Your task to perform on an android device: Go to eBay Image 0: 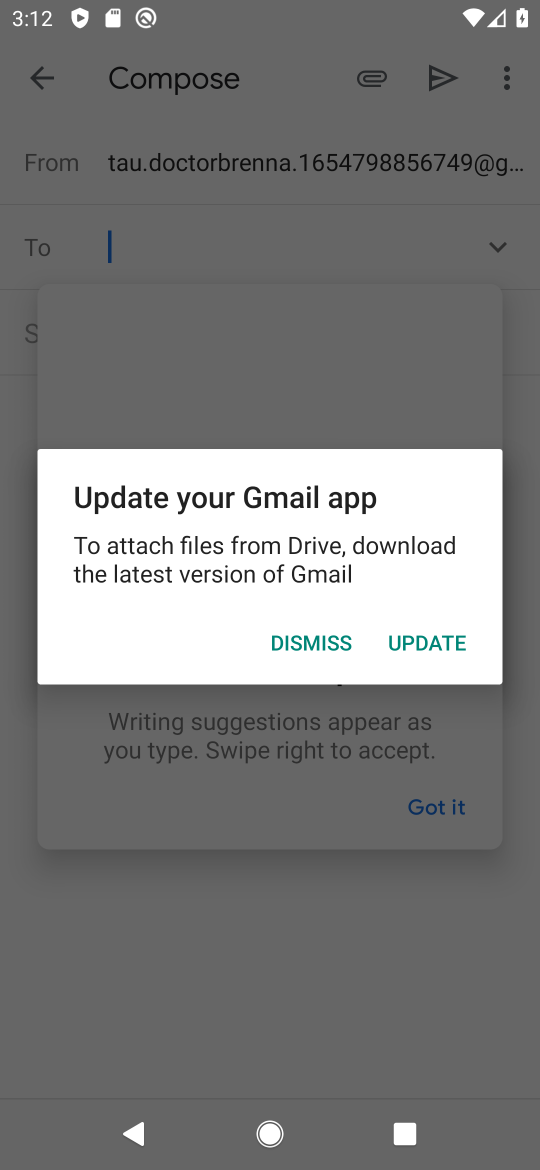
Step 0: press home button
Your task to perform on an android device: Go to eBay Image 1: 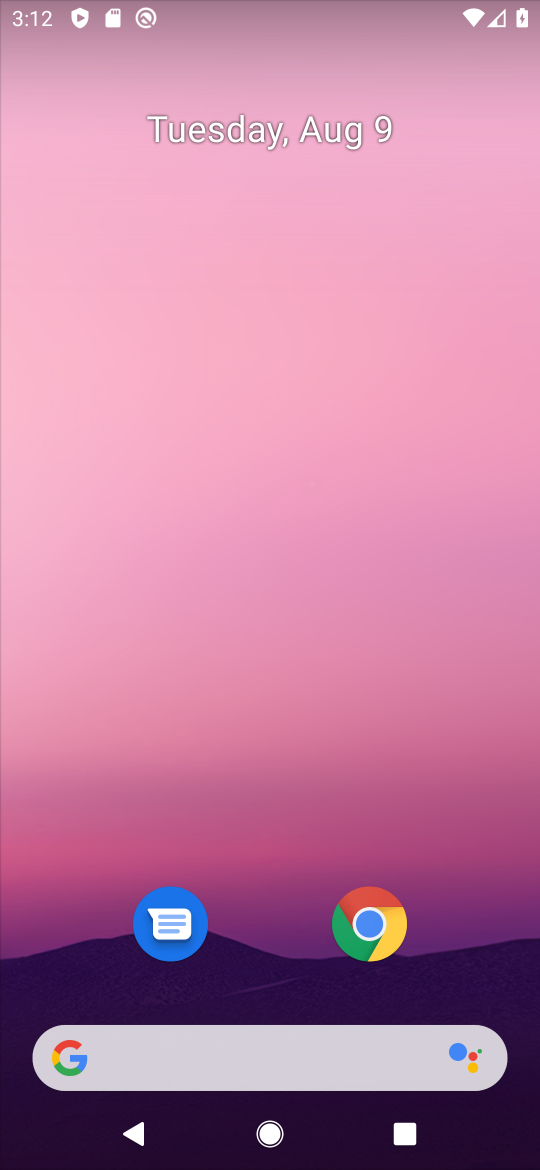
Step 1: click (375, 925)
Your task to perform on an android device: Go to eBay Image 2: 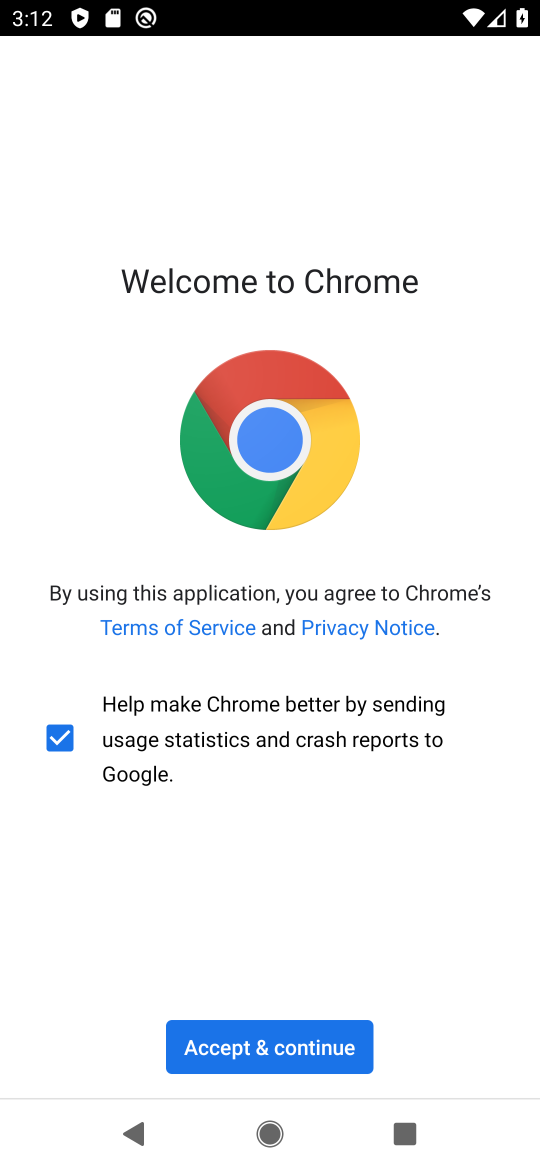
Step 2: click (289, 1043)
Your task to perform on an android device: Go to eBay Image 3: 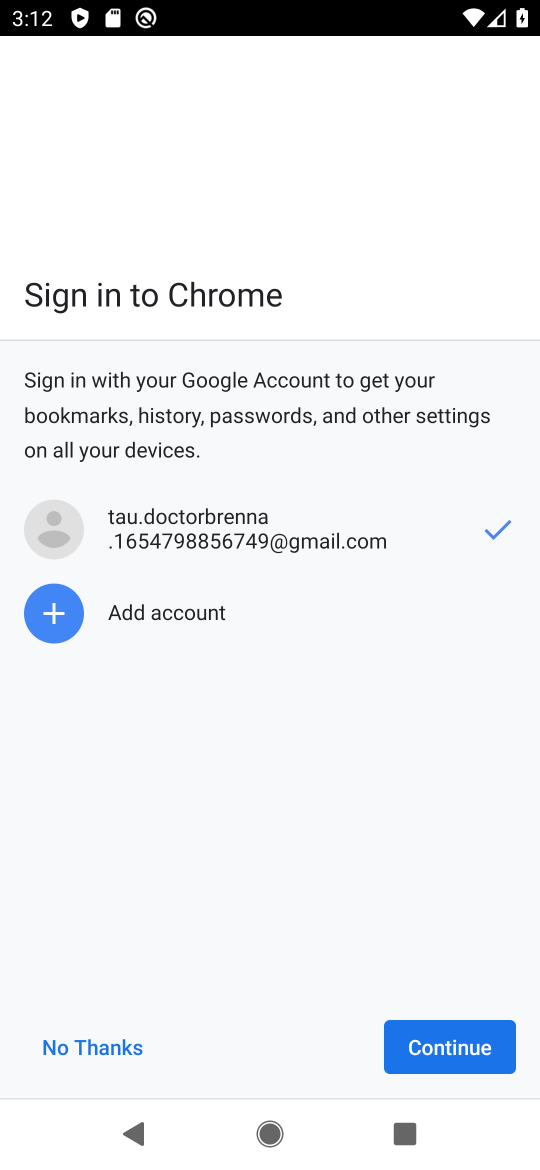
Step 3: click (444, 1047)
Your task to perform on an android device: Go to eBay Image 4: 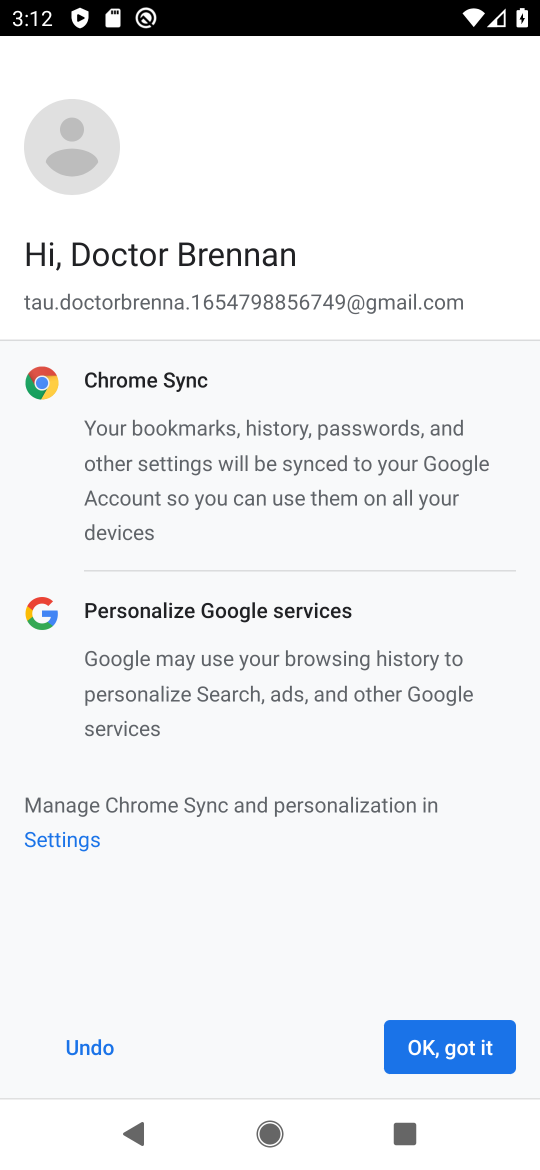
Step 4: click (444, 1047)
Your task to perform on an android device: Go to eBay Image 5: 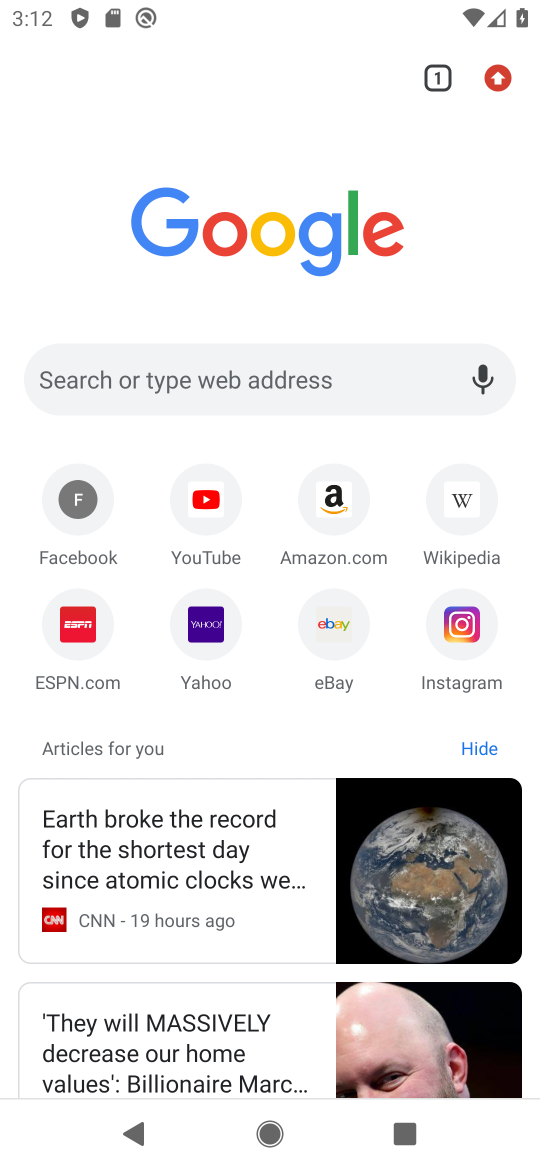
Step 5: click (331, 635)
Your task to perform on an android device: Go to eBay Image 6: 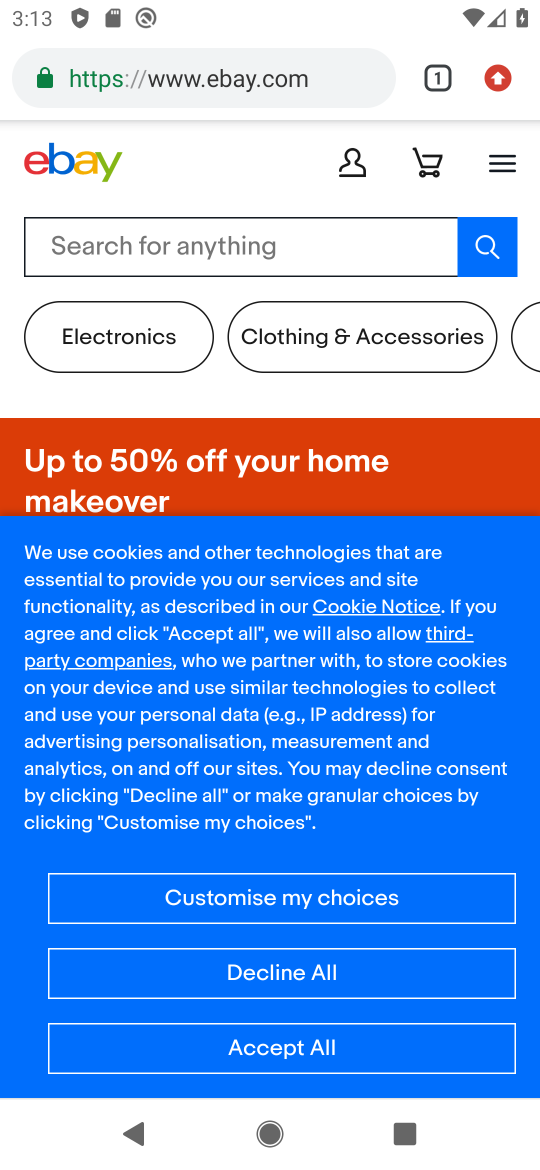
Step 6: click (311, 1048)
Your task to perform on an android device: Go to eBay Image 7: 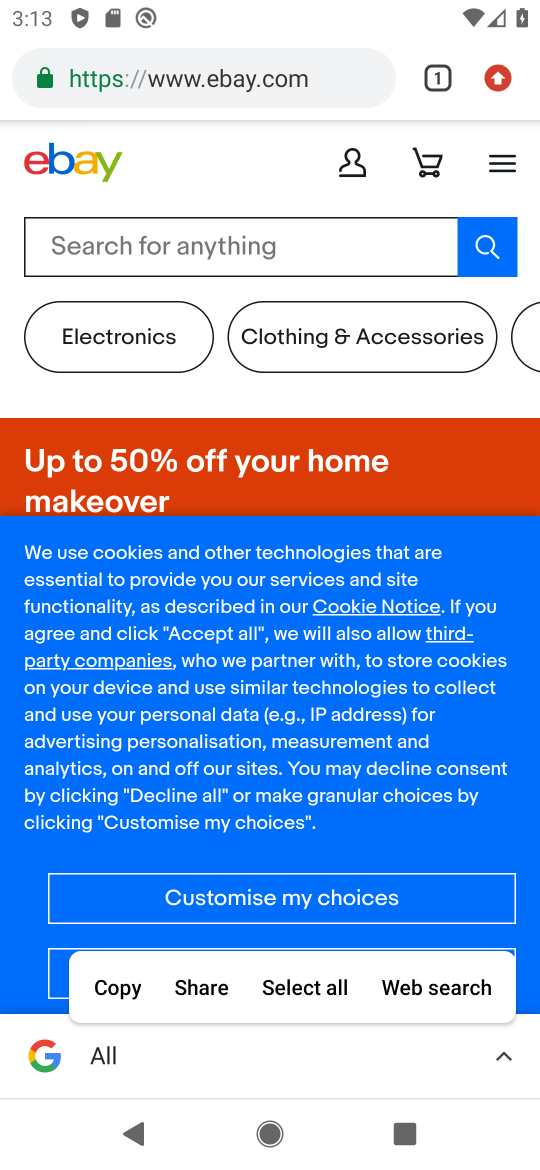
Step 7: task complete